Your task to perform on an android device: Go to location settings Image 0: 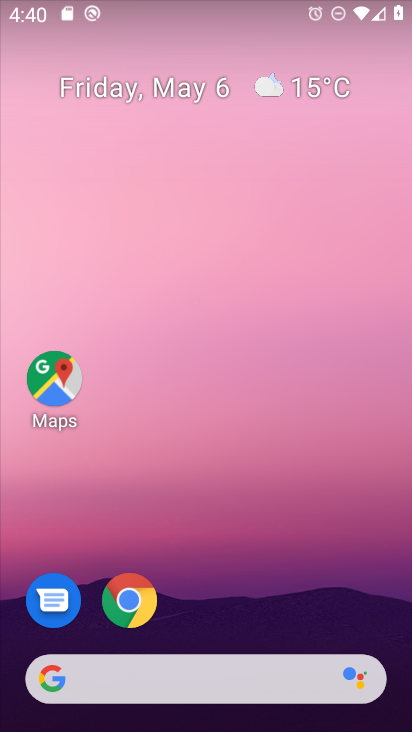
Step 0: drag from (227, 620) to (298, 36)
Your task to perform on an android device: Go to location settings Image 1: 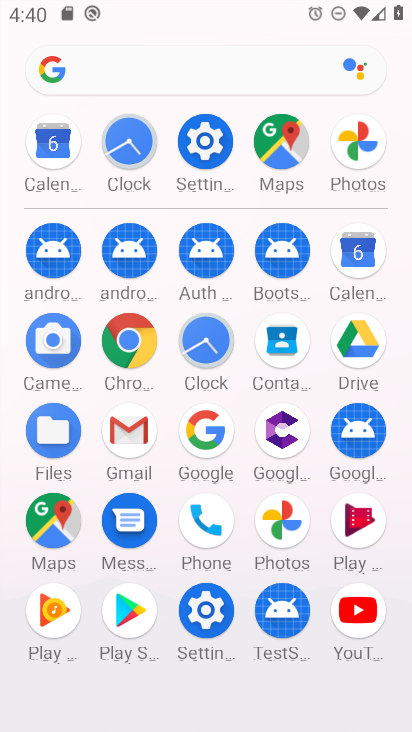
Step 1: click (210, 626)
Your task to perform on an android device: Go to location settings Image 2: 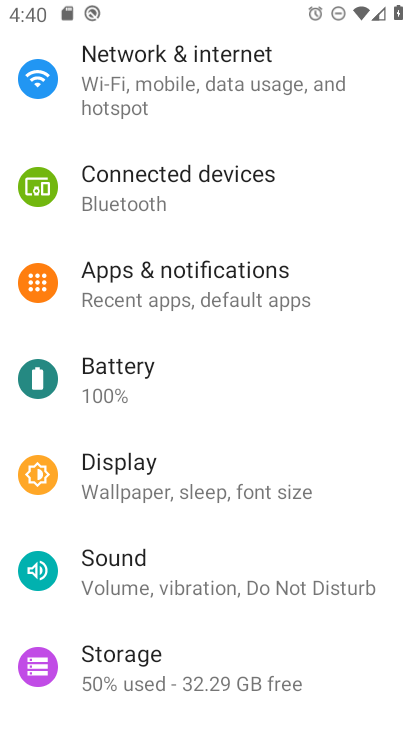
Step 2: drag from (168, 652) to (236, 234)
Your task to perform on an android device: Go to location settings Image 3: 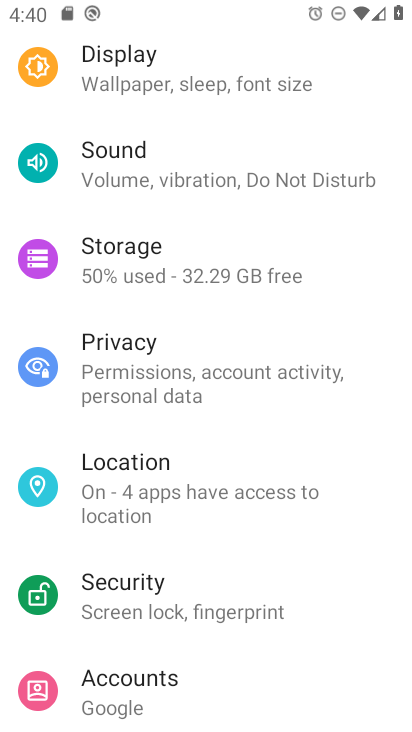
Step 3: click (123, 500)
Your task to perform on an android device: Go to location settings Image 4: 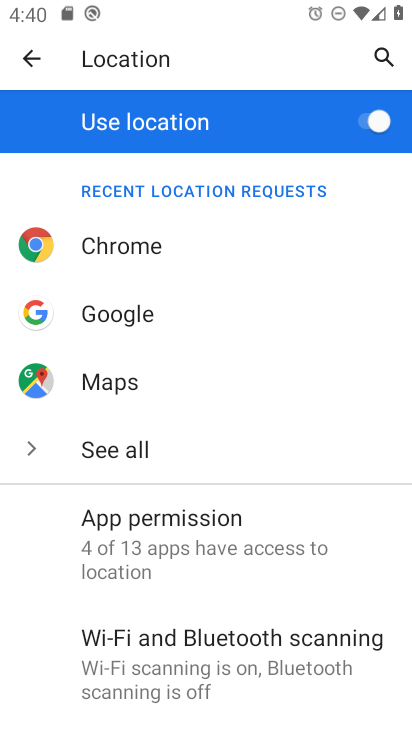
Step 4: task complete